Your task to perform on an android device: toggle translation in the chrome app Image 0: 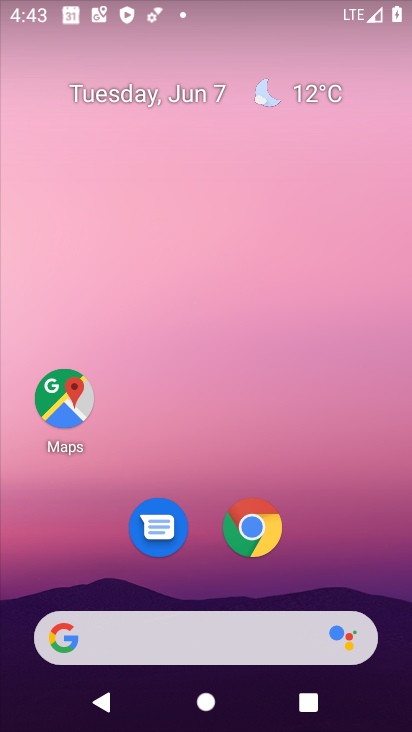
Step 0: click (260, 524)
Your task to perform on an android device: toggle translation in the chrome app Image 1: 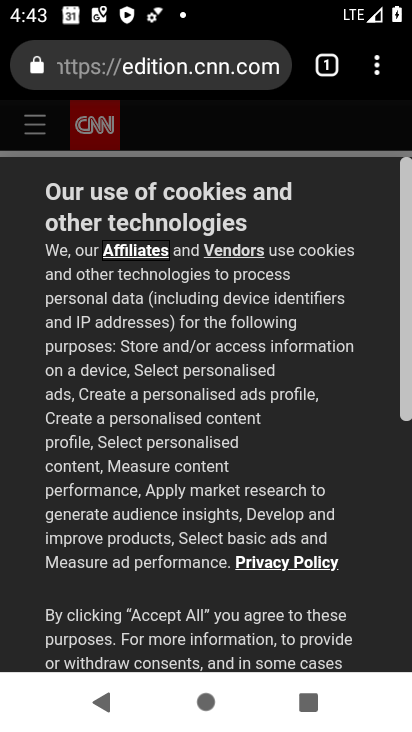
Step 1: click (378, 71)
Your task to perform on an android device: toggle translation in the chrome app Image 2: 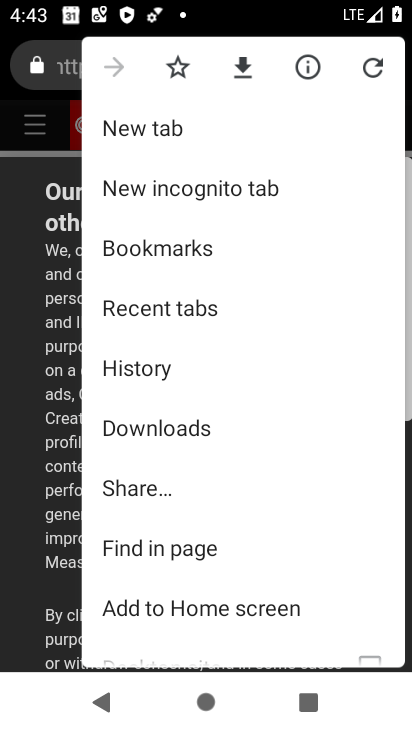
Step 2: drag from (215, 468) to (296, 315)
Your task to perform on an android device: toggle translation in the chrome app Image 3: 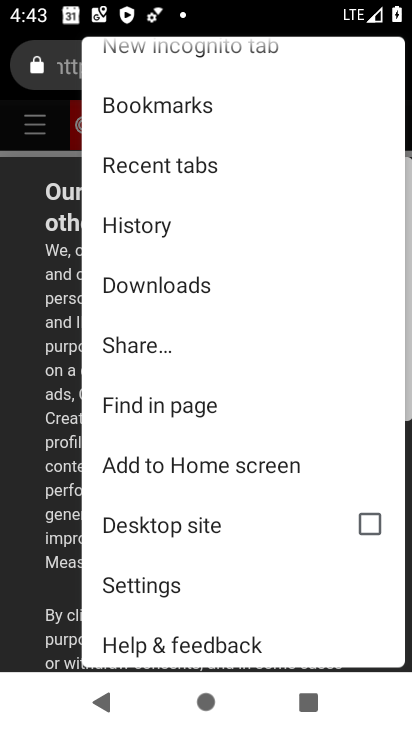
Step 3: click (166, 587)
Your task to perform on an android device: toggle translation in the chrome app Image 4: 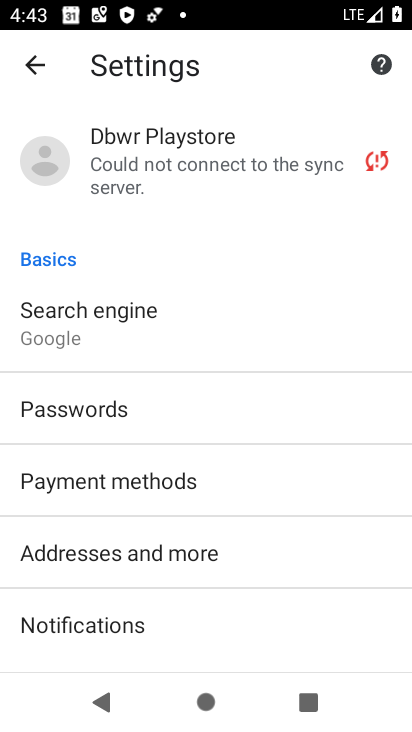
Step 4: drag from (203, 497) to (230, 412)
Your task to perform on an android device: toggle translation in the chrome app Image 5: 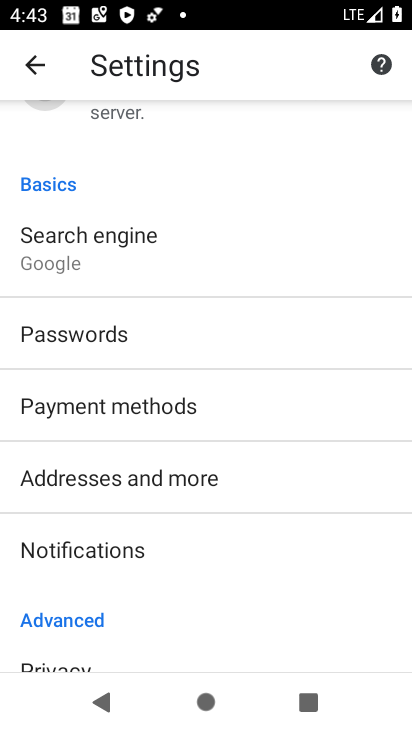
Step 5: drag from (189, 584) to (190, 467)
Your task to perform on an android device: toggle translation in the chrome app Image 6: 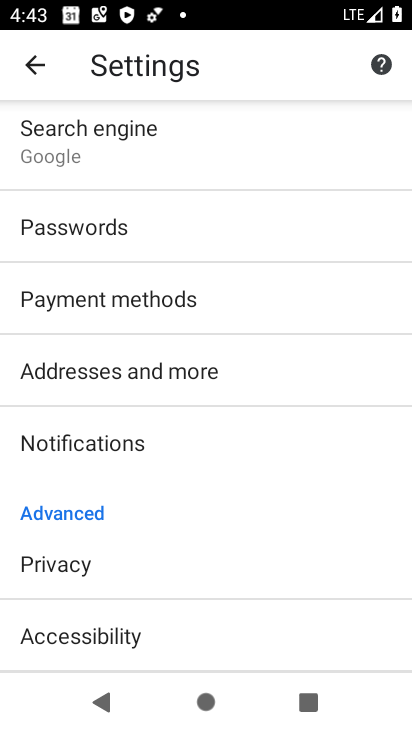
Step 6: drag from (169, 561) to (178, 495)
Your task to perform on an android device: toggle translation in the chrome app Image 7: 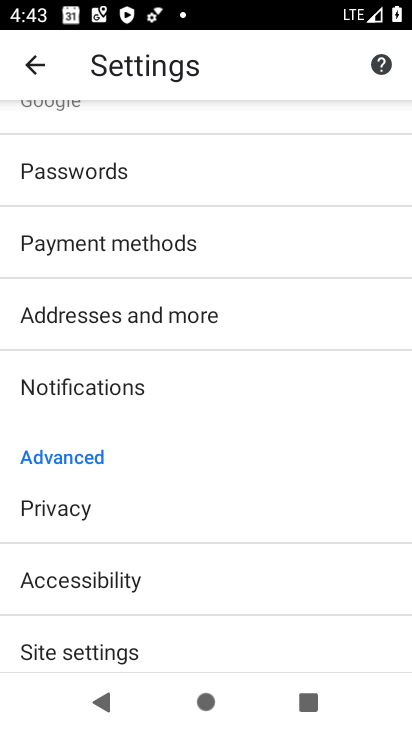
Step 7: drag from (164, 604) to (190, 500)
Your task to perform on an android device: toggle translation in the chrome app Image 8: 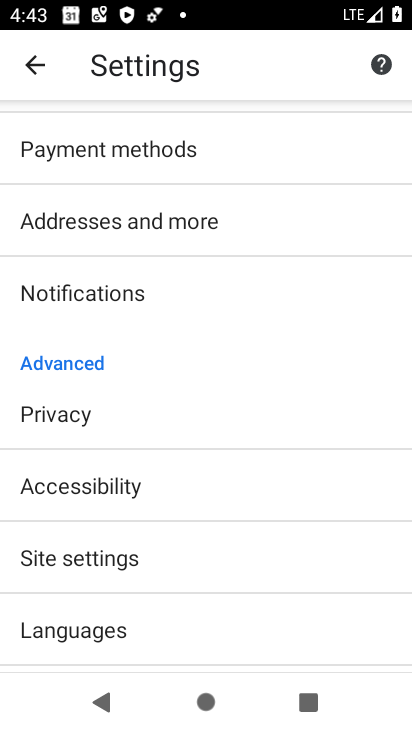
Step 8: click (116, 634)
Your task to perform on an android device: toggle translation in the chrome app Image 9: 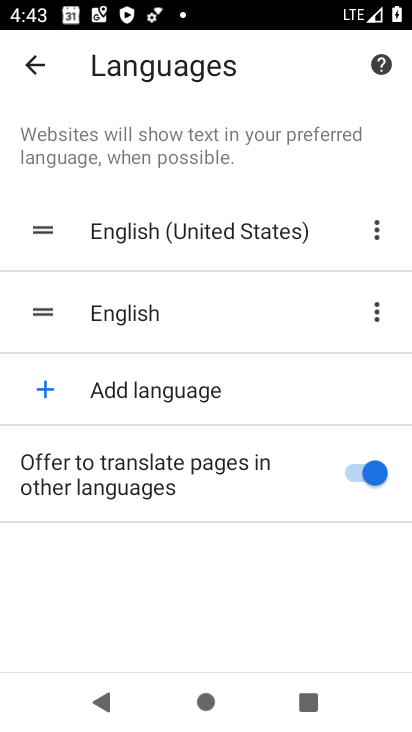
Step 9: click (350, 481)
Your task to perform on an android device: toggle translation in the chrome app Image 10: 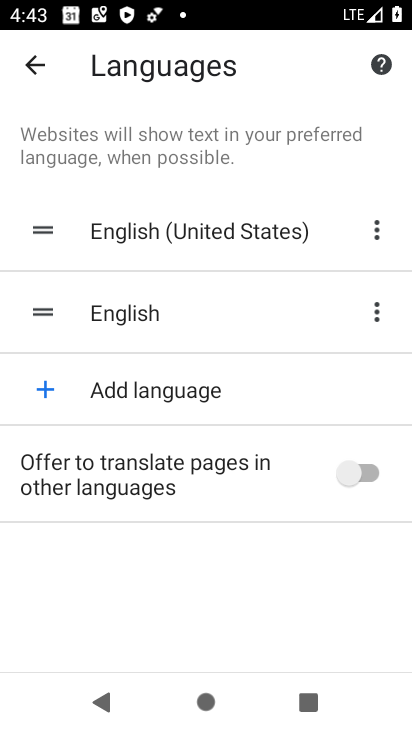
Step 10: task complete